Your task to perform on an android device: Open the stopwatch Image 0: 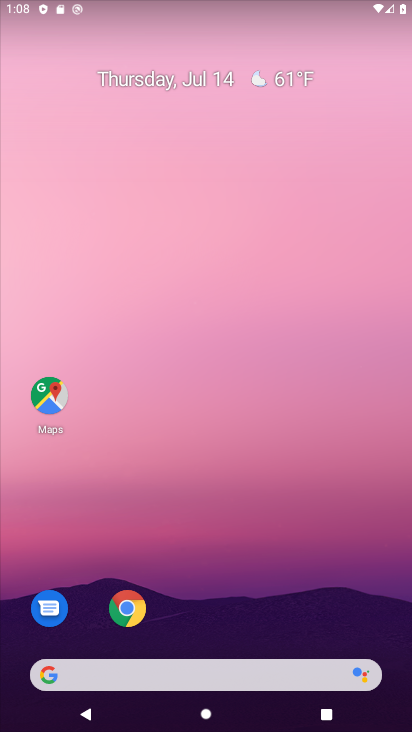
Step 0: drag from (232, 651) to (285, 225)
Your task to perform on an android device: Open the stopwatch Image 1: 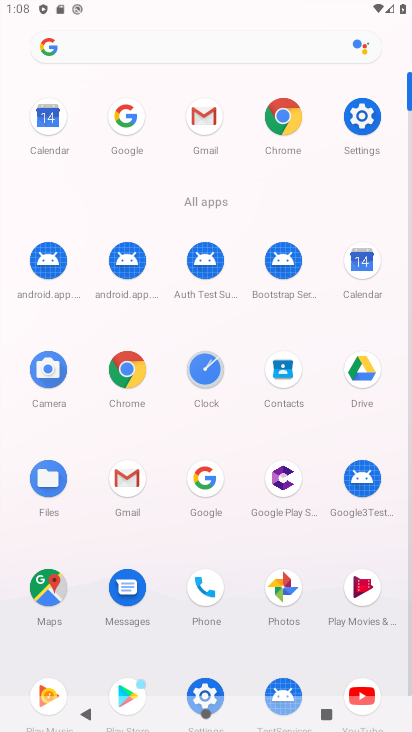
Step 1: click (198, 372)
Your task to perform on an android device: Open the stopwatch Image 2: 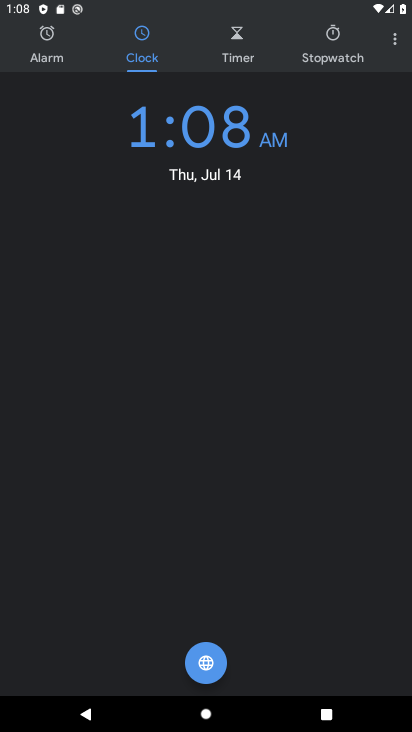
Step 2: click (327, 55)
Your task to perform on an android device: Open the stopwatch Image 3: 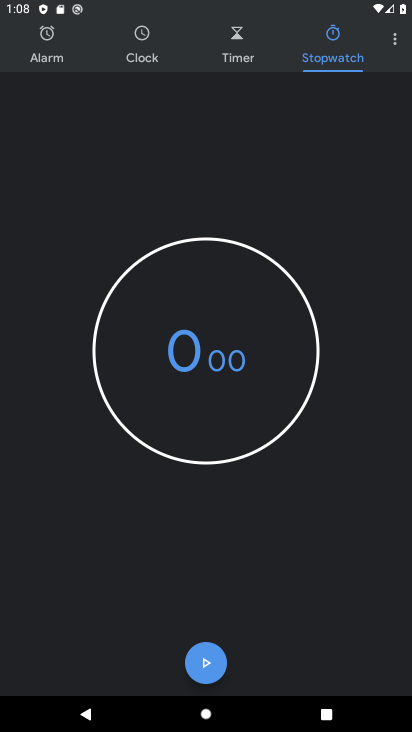
Step 3: task complete